Your task to perform on an android device: Search for all emails from 'tau.maisiebrenna.1654798856750@gmail.com' Image 0: 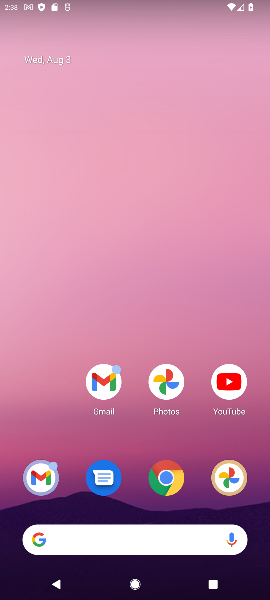
Step 0: click (89, 378)
Your task to perform on an android device: Search for all emails from 'tau.maisiebrenna.1654798856750@gmail.com' Image 1: 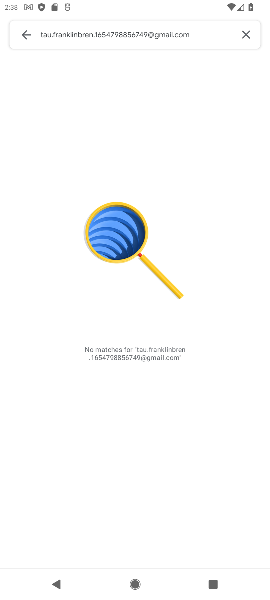
Step 1: click (248, 32)
Your task to perform on an android device: Search for all emails from 'tau.maisiebrenna.1654798856750@gmail.com' Image 2: 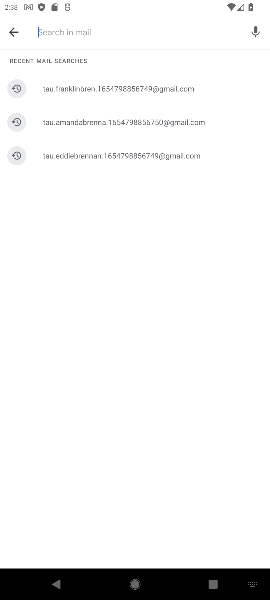
Step 2: type "tau.maisiebrenna.1654798856750@gmail.com"
Your task to perform on an android device: Search for all emails from 'tau.maisiebrenna.1654798856750@gmail.com' Image 3: 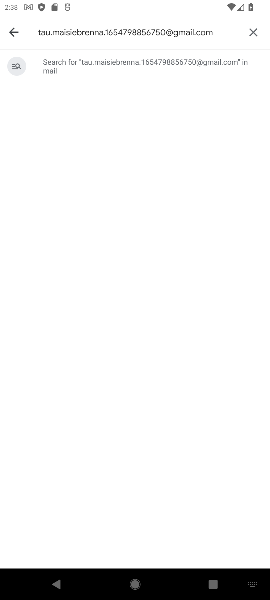
Step 3: click (134, 56)
Your task to perform on an android device: Search for all emails from 'tau.maisiebrenna.1654798856750@gmail.com' Image 4: 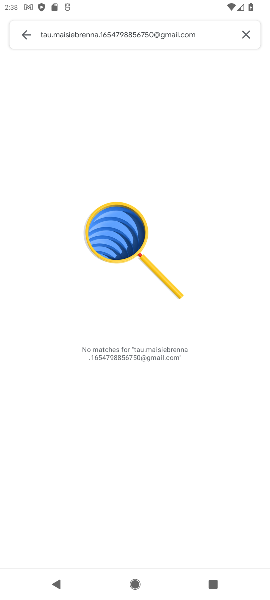
Step 4: task complete